Your task to perform on an android device: What is the average speed of a car? Image 0: 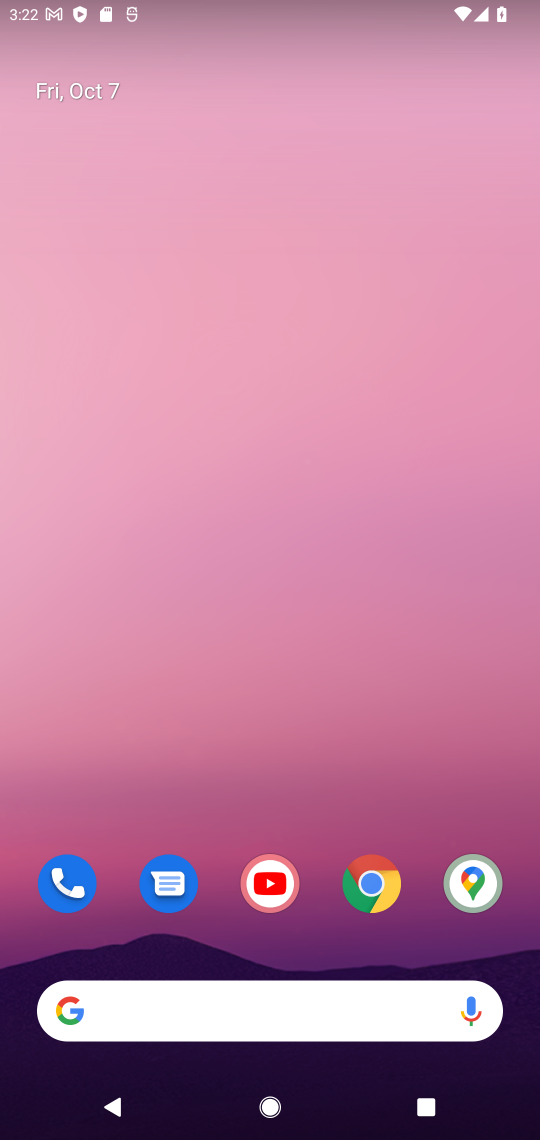
Step 0: click (377, 894)
Your task to perform on an android device: What is the average speed of a car? Image 1: 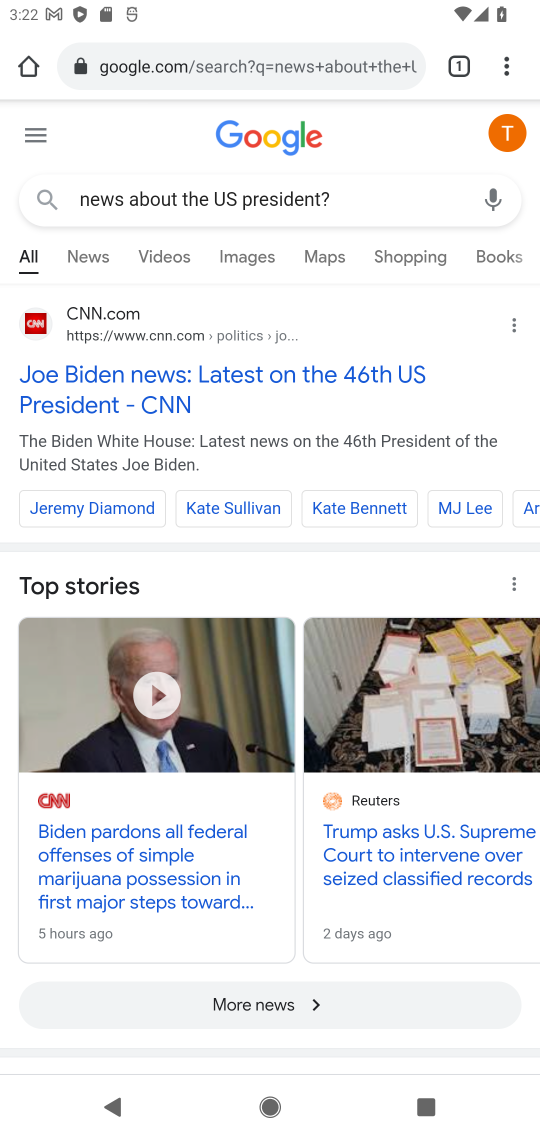
Step 1: click (350, 193)
Your task to perform on an android device: What is the average speed of a car? Image 2: 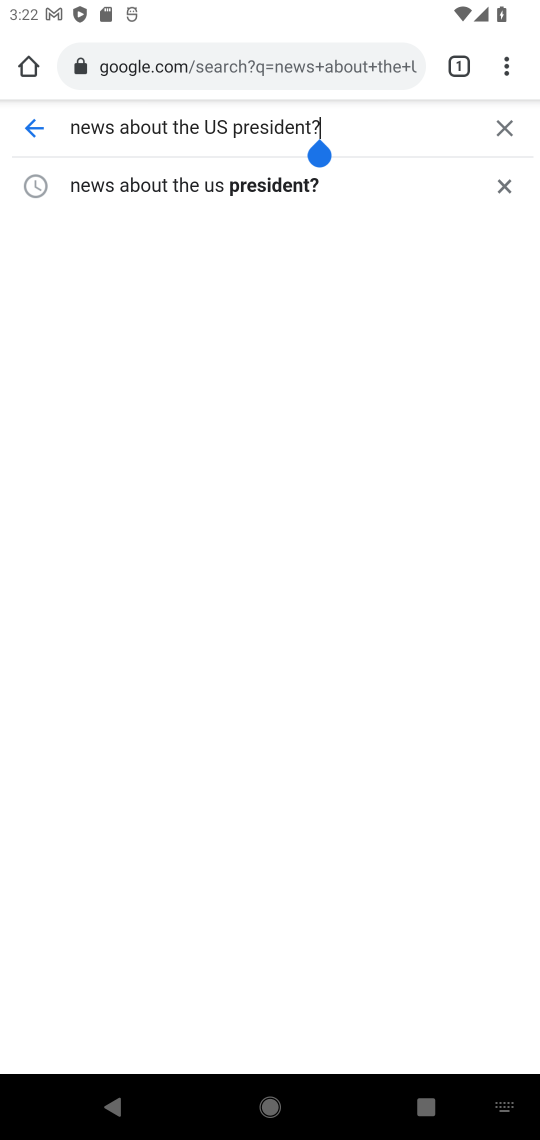
Step 2: click (505, 136)
Your task to perform on an android device: What is the average speed of a car? Image 3: 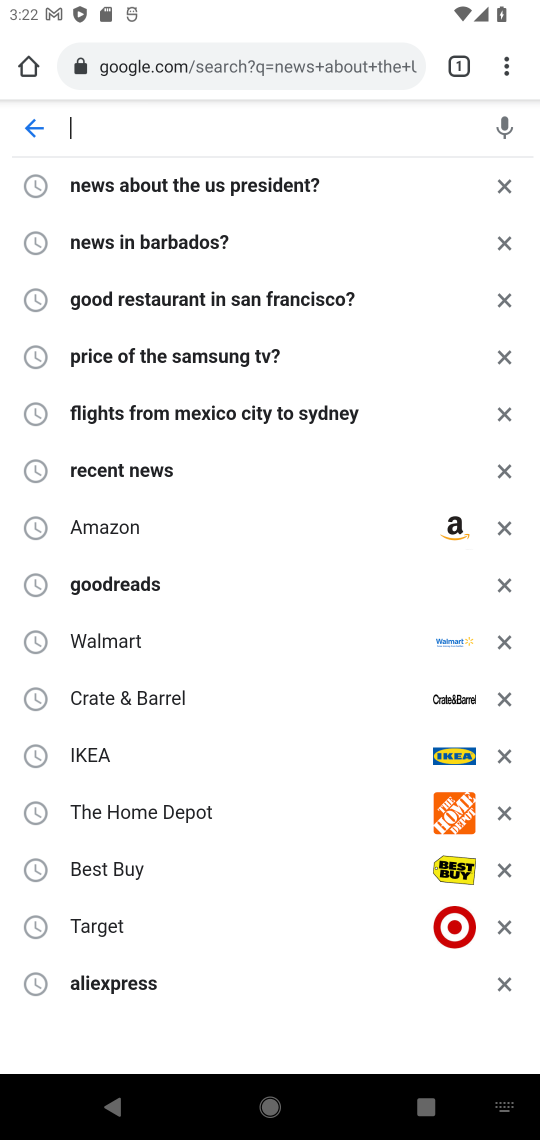
Step 3: type "average speed of a car?"
Your task to perform on an android device: What is the average speed of a car? Image 4: 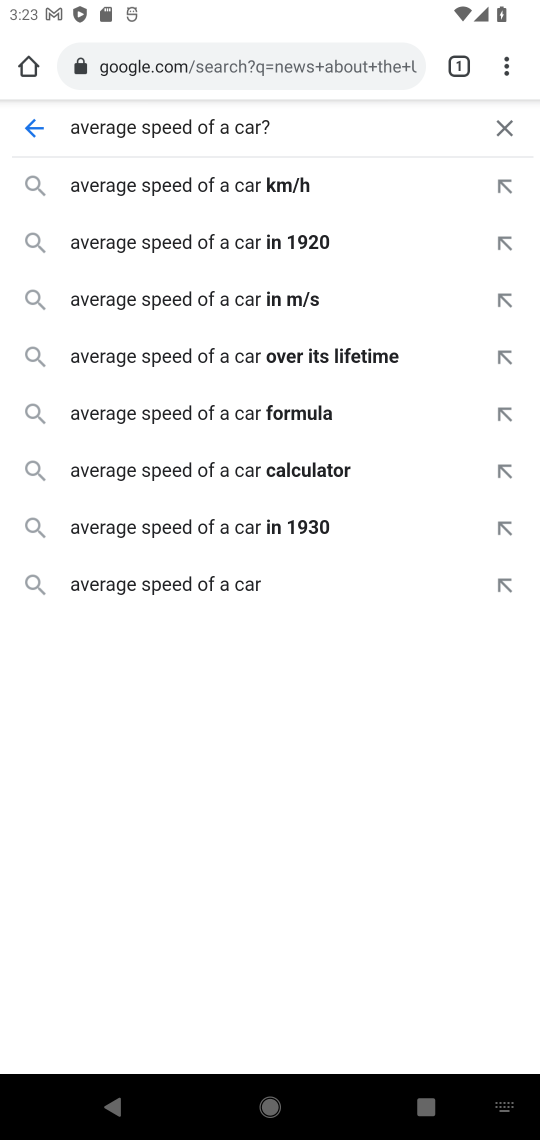
Step 4: press enter
Your task to perform on an android device: What is the average speed of a car? Image 5: 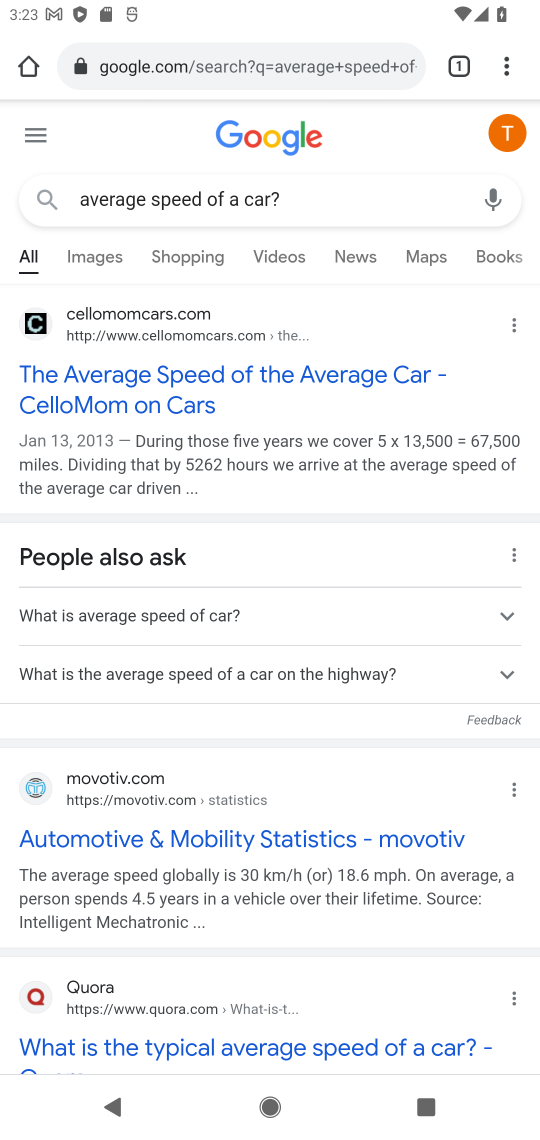
Step 5: drag from (366, 920) to (338, 260)
Your task to perform on an android device: What is the average speed of a car? Image 6: 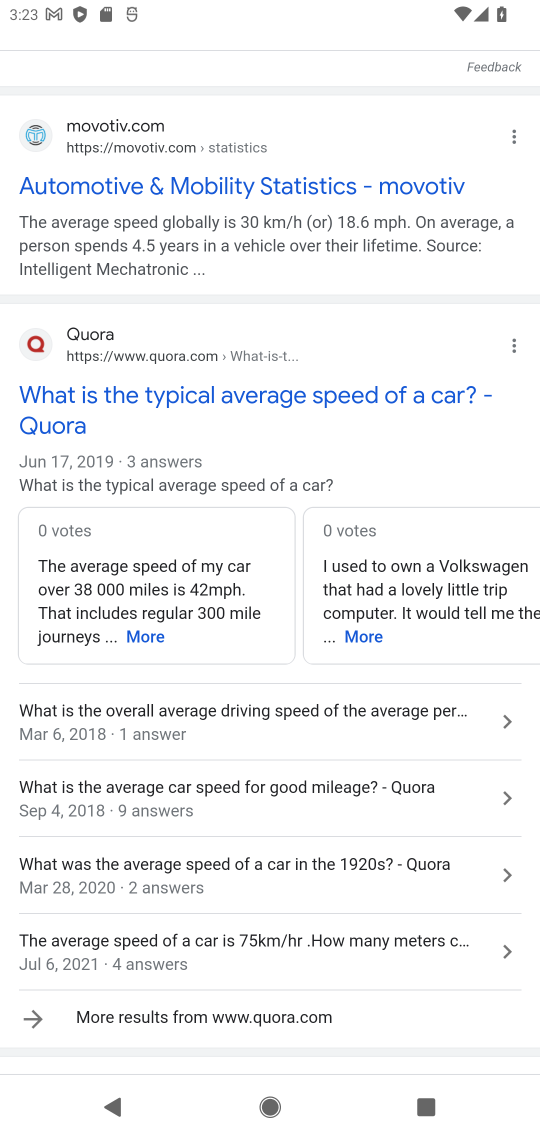
Step 6: drag from (368, 273) to (361, 961)
Your task to perform on an android device: What is the average speed of a car? Image 7: 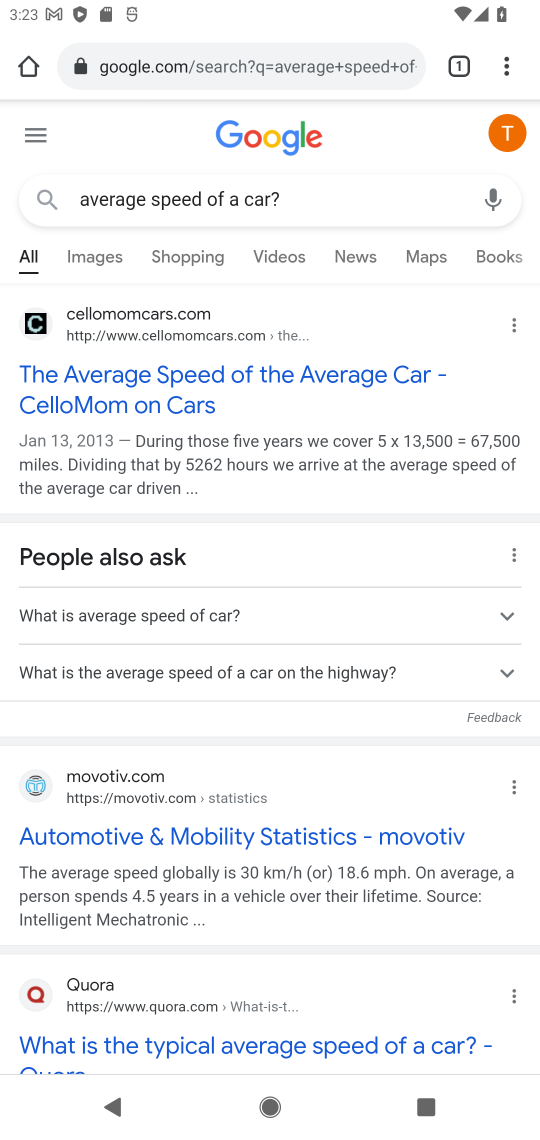
Step 7: click (245, 421)
Your task to perform on an android device: What is the average speed of a car? Image 8: 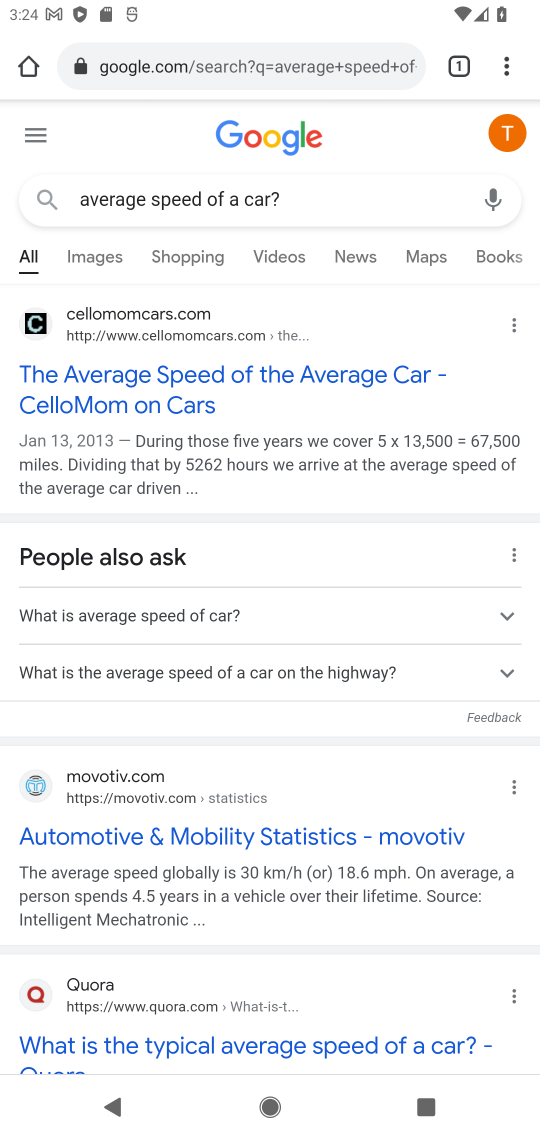
Step 8: task complete